Your task to perform on an android device: set default search engine in the chrome app Image 0: 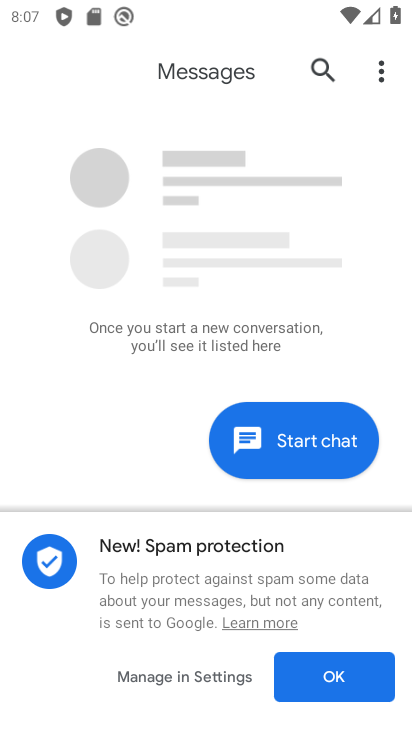
Step 0: press back button
Your task to perform on an android device: set default search engine in the chrome app Image 1: 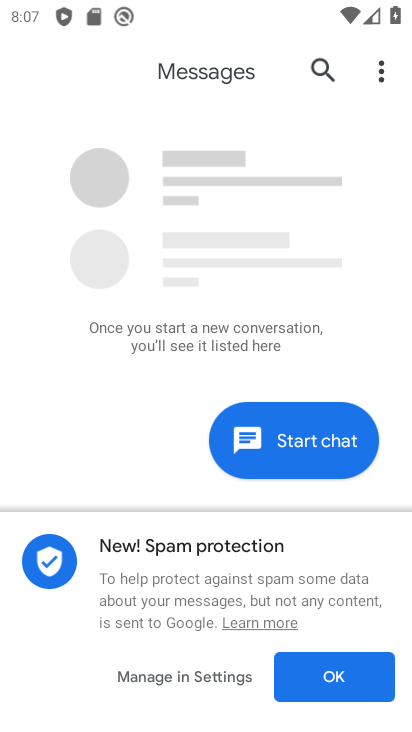
Step 1: press back button
Your task to perform on an android device: set default search engine in the chrome app Image 2: 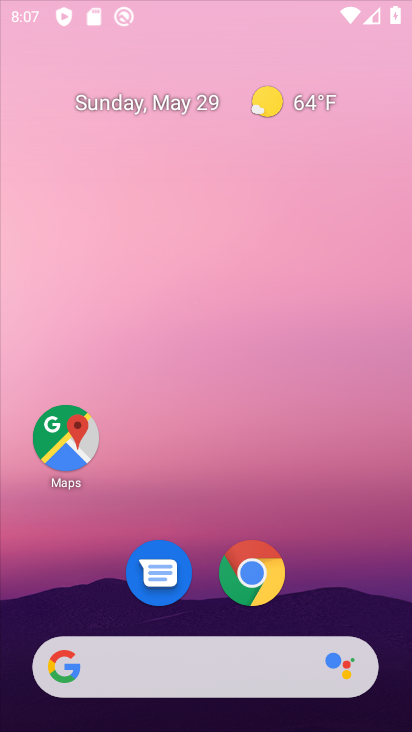
Step 2: press back button
Your task to perform on an android device: set default search engine in the chrome app Image 3: 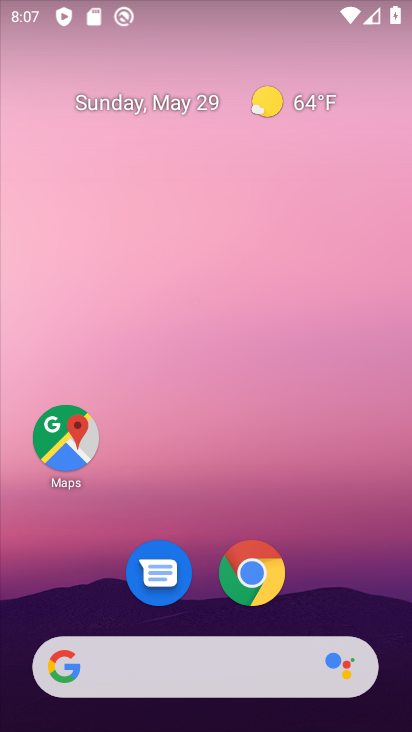
Step 3: press back button
Your task to perform on an android device: set default search engine in the chrome app Image 4: 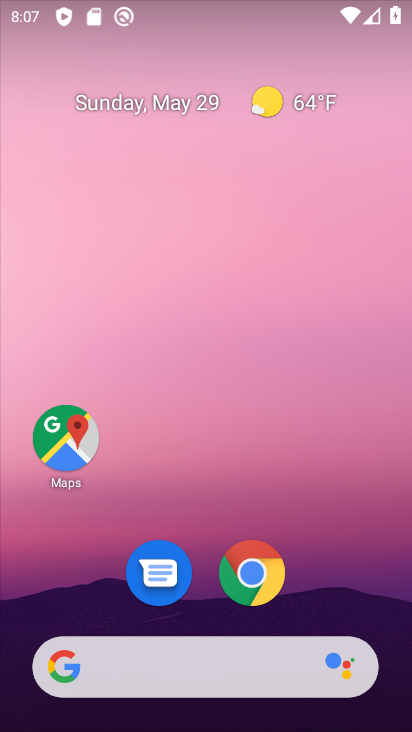
Step 4: press back button
Your task to perform on an android device: set default search engine in the chrome app Image 5: 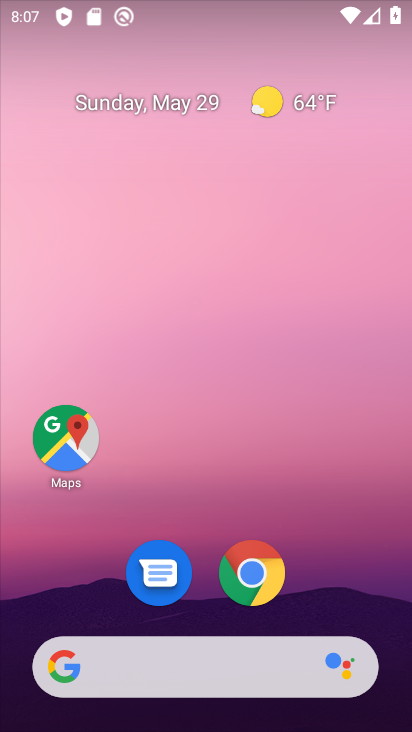
Step 5: drag from (245, 671) to (154, 120)
Your task to perform on an android device: set default search engine in the chrome app Image 6: 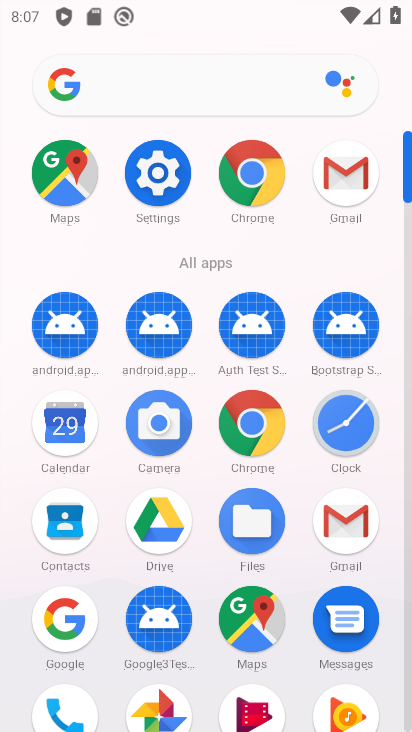
Step 6: click (246, 440)
Your task to perform on an android device: set default search engine in the chrome app Image 7: 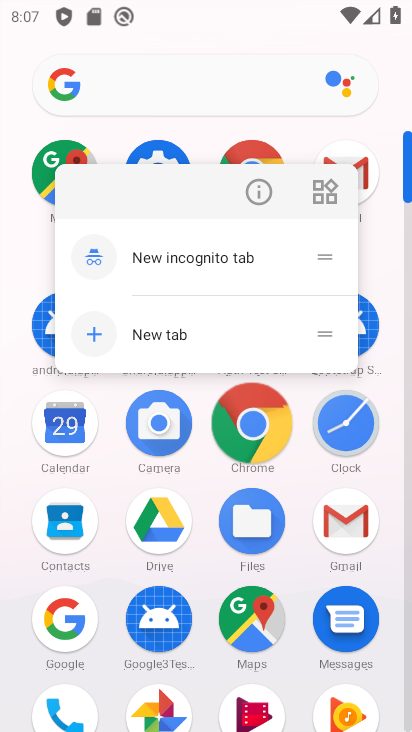
Step 7: click (246, 440)
Your task to perform on an android device: set default search engine in the chrome app Image 8: 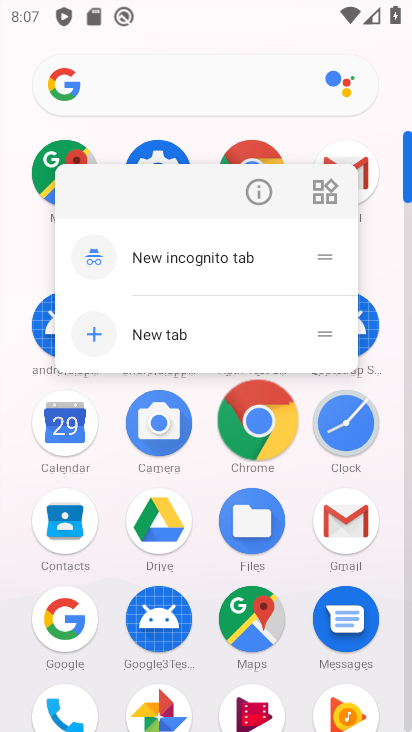
Step 8: click (253, 436)
Your task to perform on an android device: set default search engine in the chrome app Image 9: 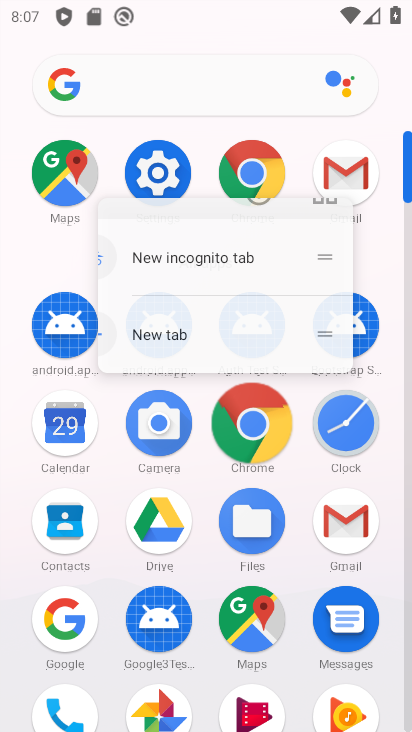
Step 9: click (253, 414)
Your task to perform on an android device: set default search engine in the chrome app Image 10: 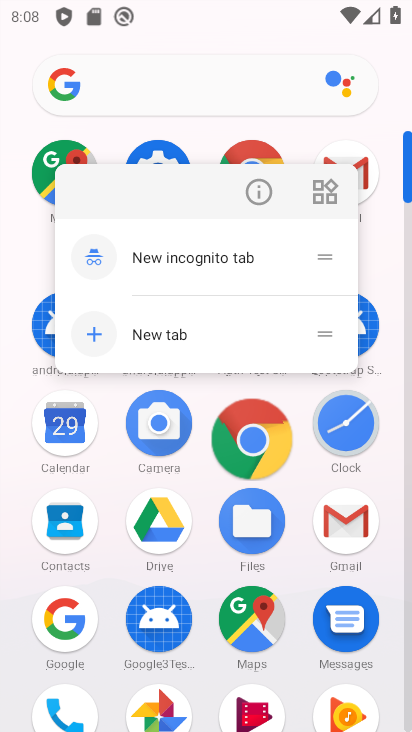
Step 10: drag from (253, 430) to (222, 457)
Your task to perform on an android device: set default search engine in the chrome app Image 11: 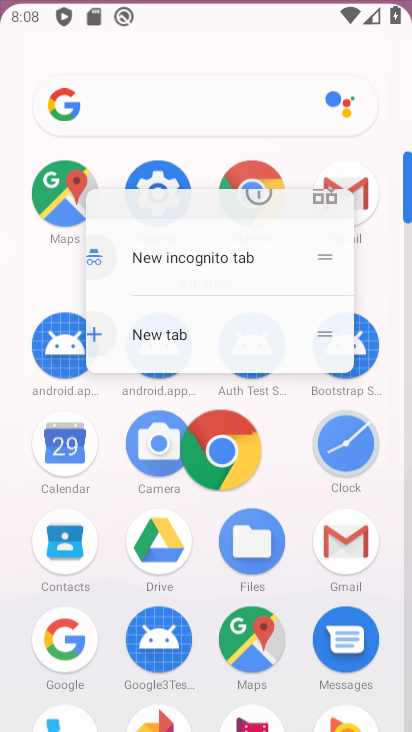
Step 11: drag from (243, 401) to (273, 438)
Your task to perform on an android device: set default search engine in the chrome app Image 12: 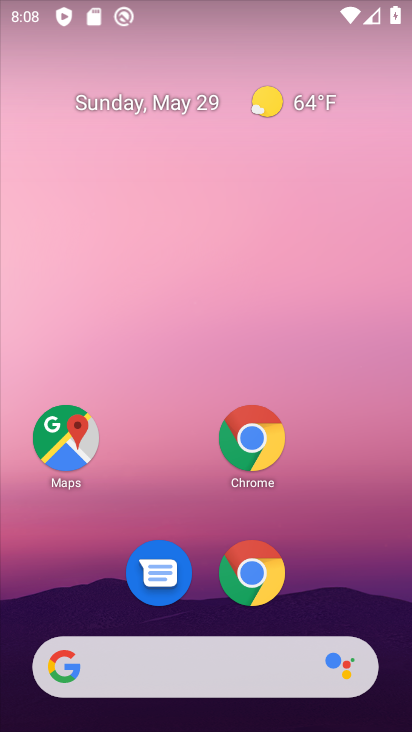
Step 12: drag from (327, 645) to (218, 62)
Your task to perform on an android device: set default search engine in the chrome app Image 13: 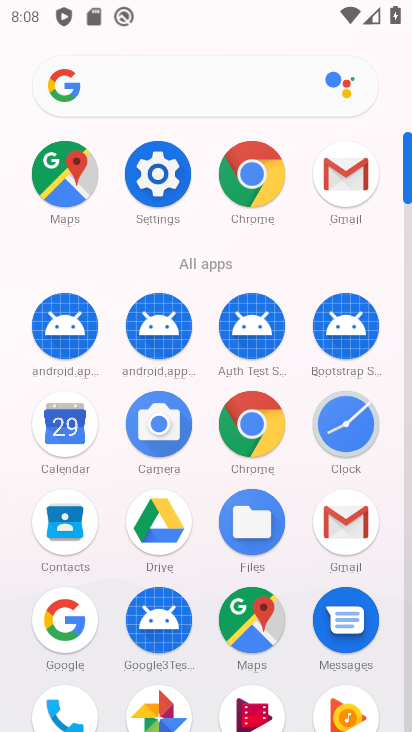
Step 13: drag from (248, 466) to (215, 23)
Your task to perform on an android device: set default search engine in the chrome app Image 14: 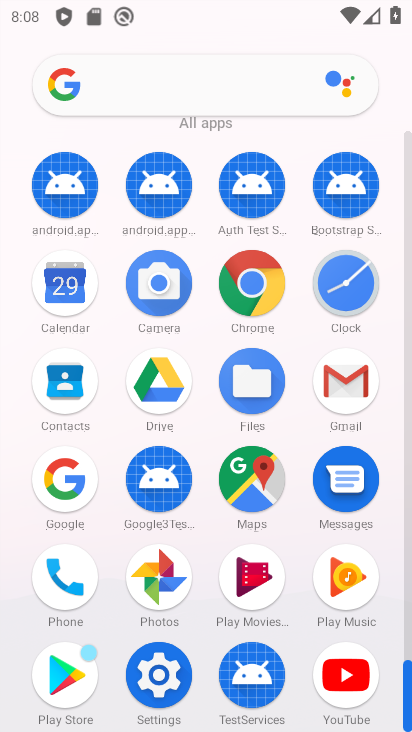
Step 14: click (246, 284)
Your task to perform on an android device: set default search engine in the chrome app Image 15: 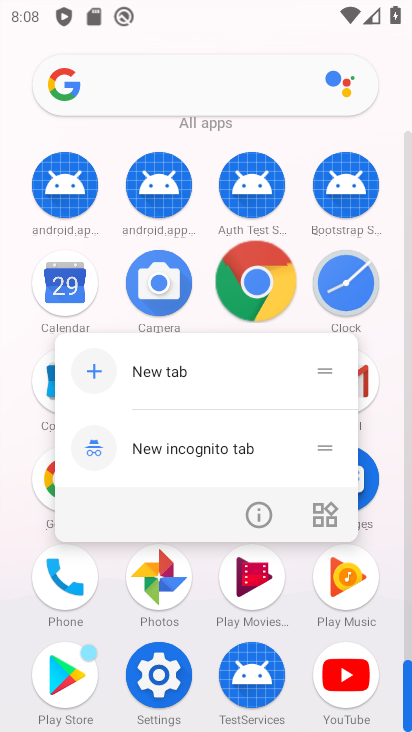
Step 15: click (251, 282)
Your task to perform on an android device: set default search engine in the chrome app Image 16: 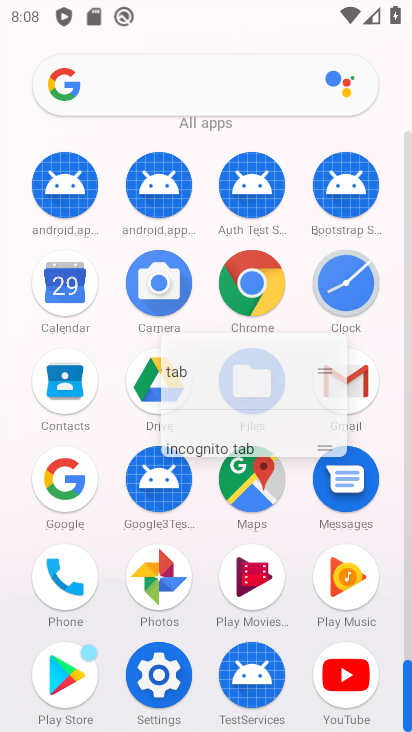
Step 16: click (252, 290)
Your task to perform on an android device: set default search engine in the chrome app Image 17: 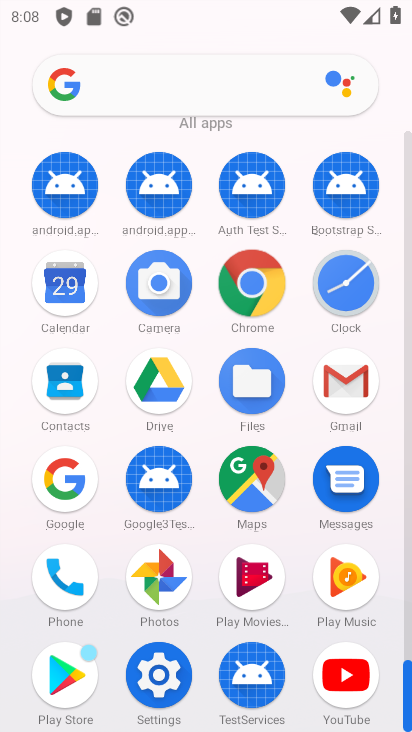
Step 17: click (251, 287)
Your task to perform on an android device: set default search engine in the chrome app Image 18: 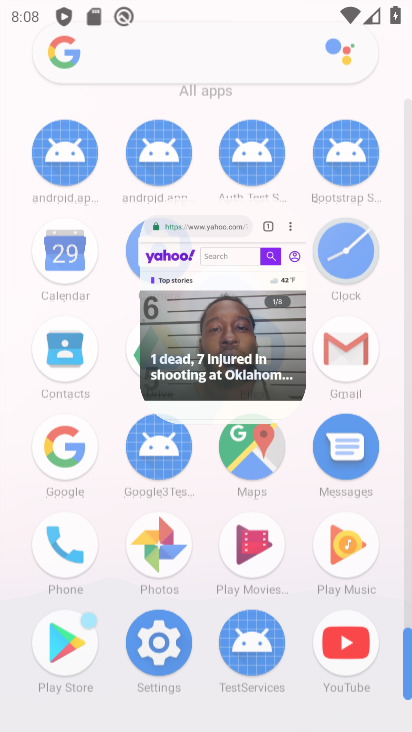
Step 18: click (249, 287)
Your task to perform on an android device: set default search engine in the chrome app Image 19: 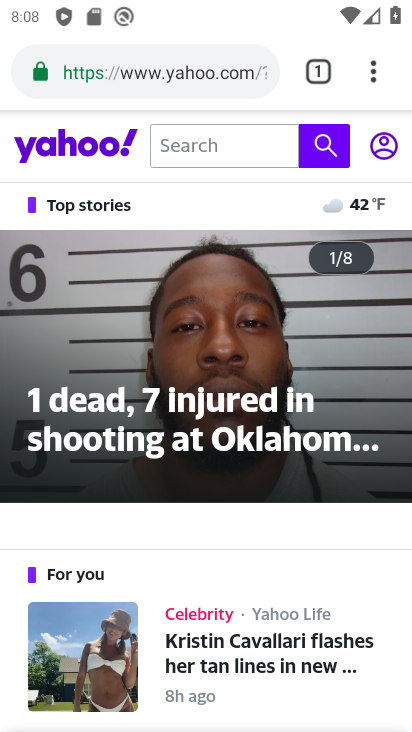
Step 19: press back button
Your task to perform on an android device: set default search engine in the chrome app Image 20: 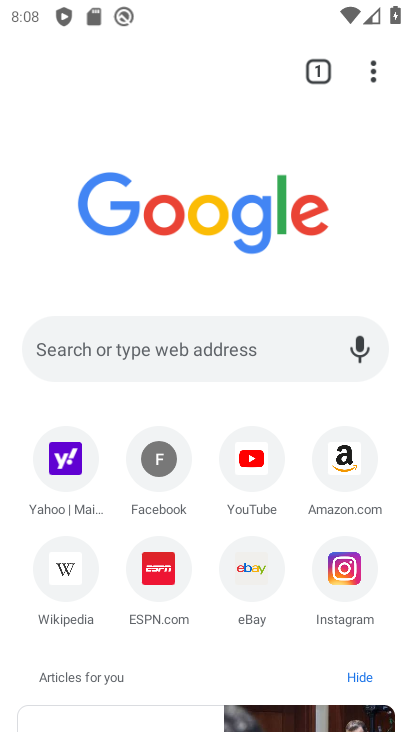
Step 20: click (372, 84)
Your task to perform on an android device: set default search engine in the chrome app Image 21: 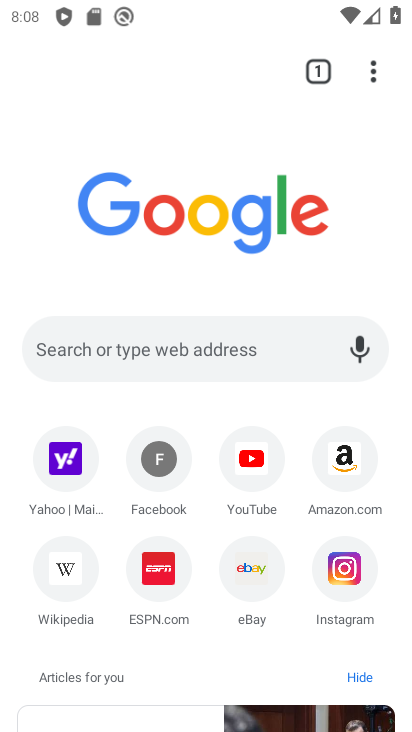
Step 21: click (371, 80)
Your task to perform on an android device: set default search engine in the chrome app Image 22: 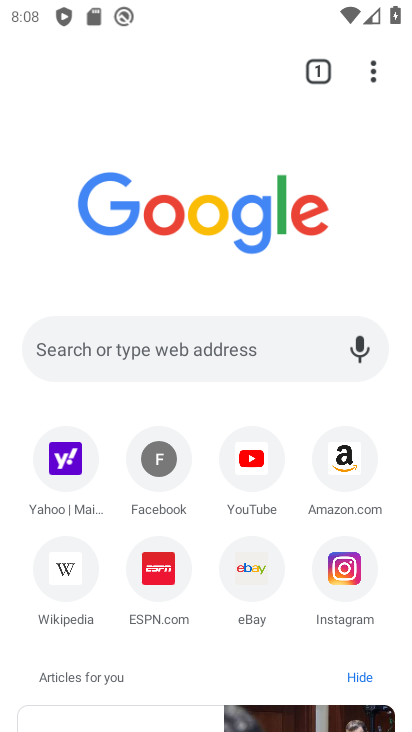
Step 22: drag from (371, 80) to (120, 624)
Your task to perform on an android device: set default search engine in the chrome app Image 23: 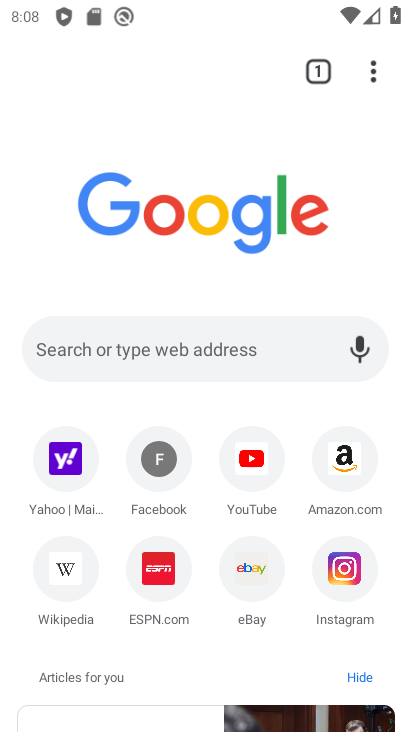
Step 23: click (119, 624)
Your task to perform on an android device: set default search engine in the chrome app Image 24: 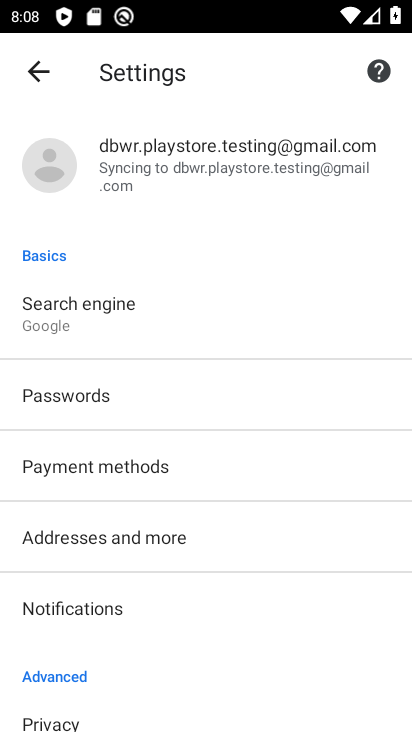
Step 24: click (69, 327)
Your task to perform on an android device: set default search engine in the chrome app Image 25: 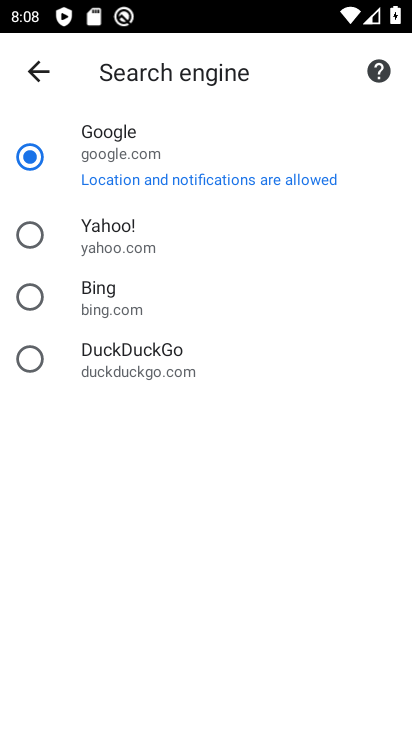
Step 25: task complete